Your task to perform on an android device: Search for the new Nintendo switch on Best Buy Image 0: 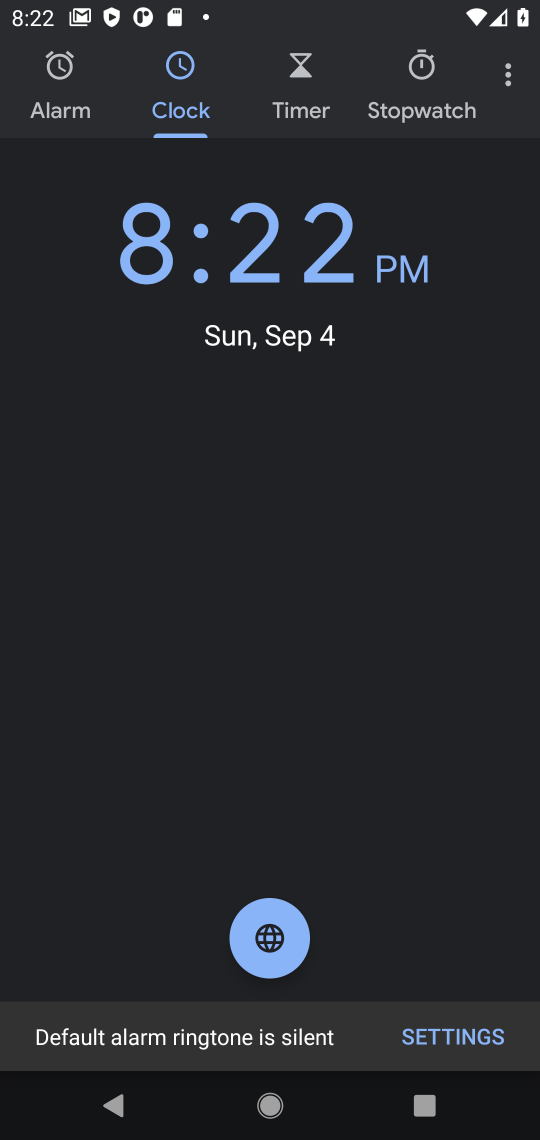
Step 0: press home button
Your task to perform on an android device: Search for the new Nintendo switch on Best Buy Image 1: 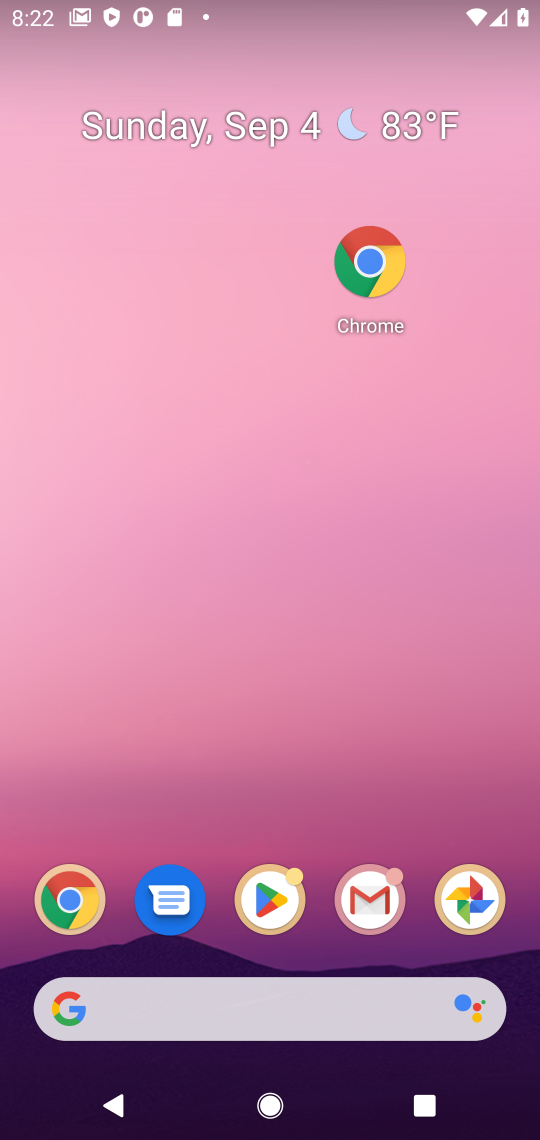
Step 1: drag from (320, 941) to (199, 66)
Your task to perform on an android device: Search for the new Nintendo switch on Best Buy Image 2: 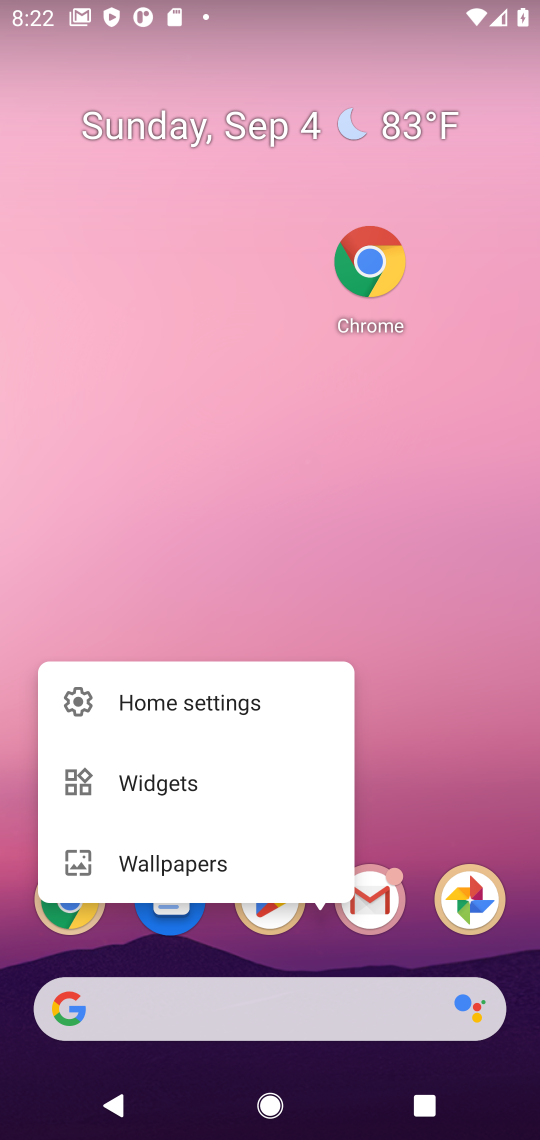
Step 2: click (294, 461)
Your task to perform on an android device: Search for the new Nintendo switch on Best Buy Image 3: 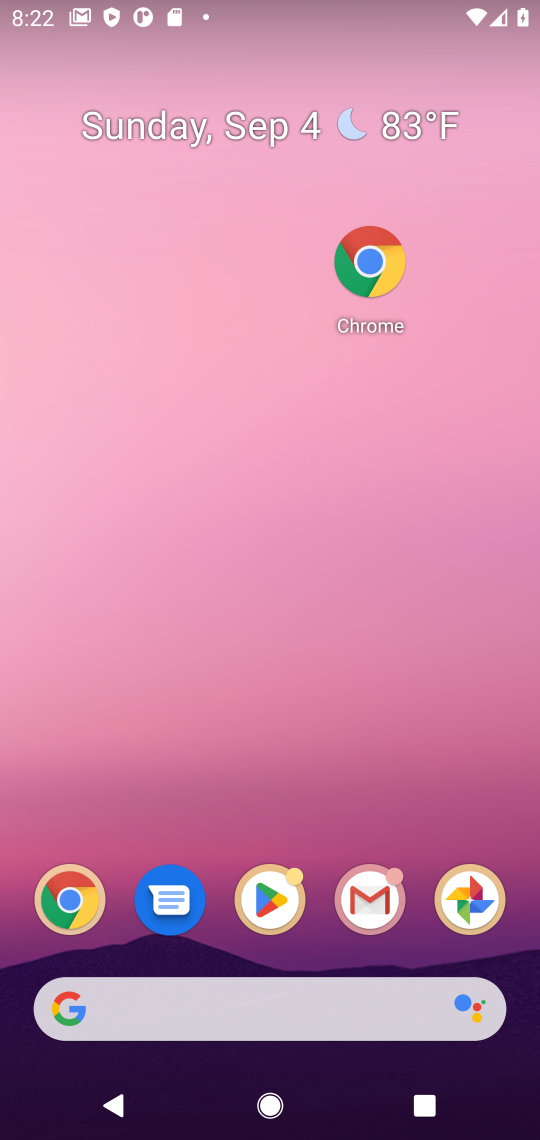
Step 3: drag from (277, 952) to (293, 102)
Your task to perform on an android device: Search for the new Nintendo switch on Best Buy Image 4: 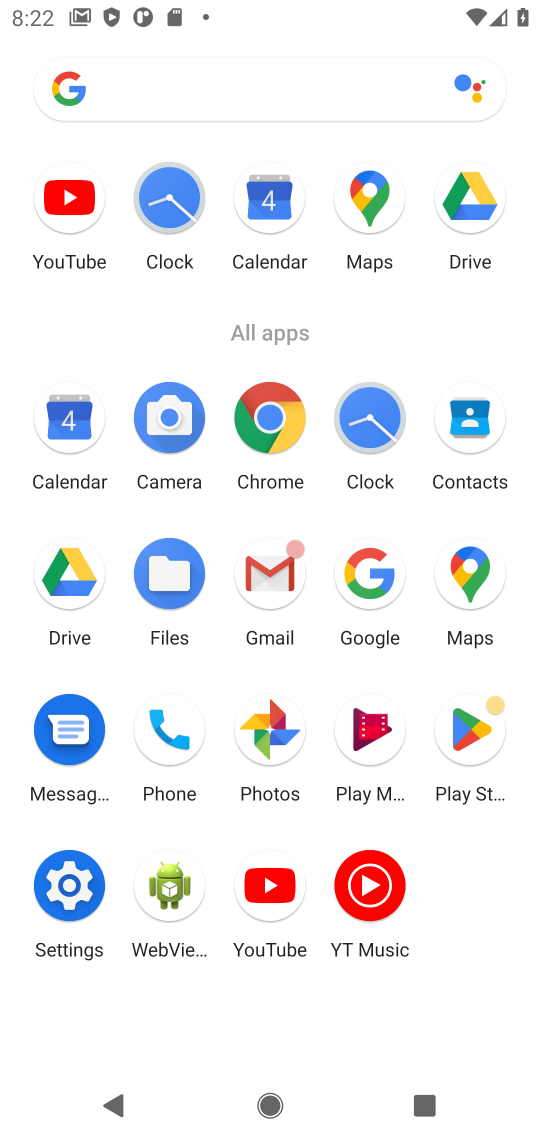
Step 4: click (295, 398)
Your task to perform on an android device: Search for the new Nintendo switch on Best Buy Image 5: 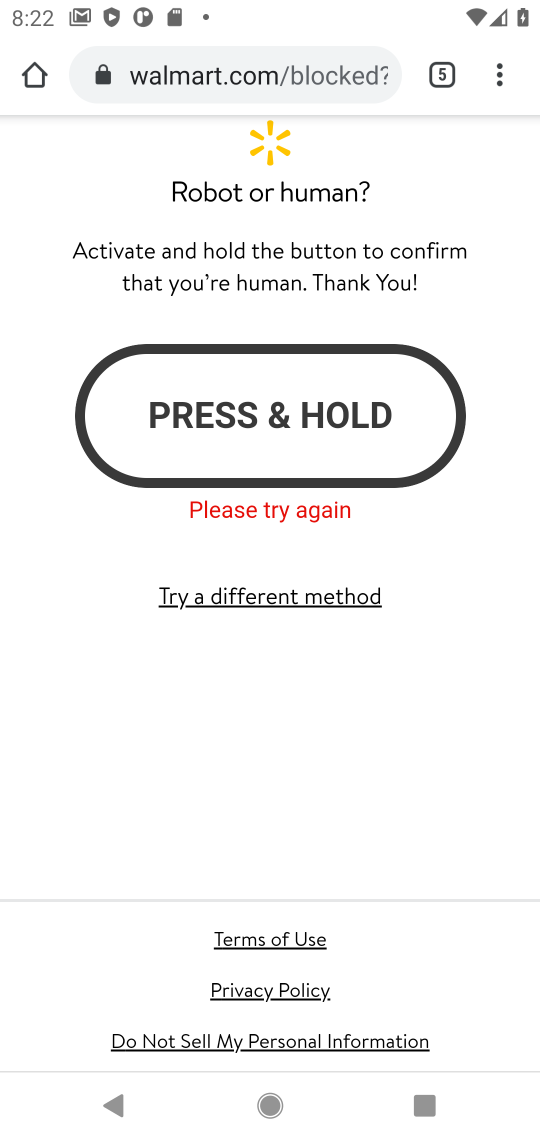
Step 5: click (443, 69)
Your task to perform on an android device: Search for the new Nintendo switch on Best Buy Image 6: 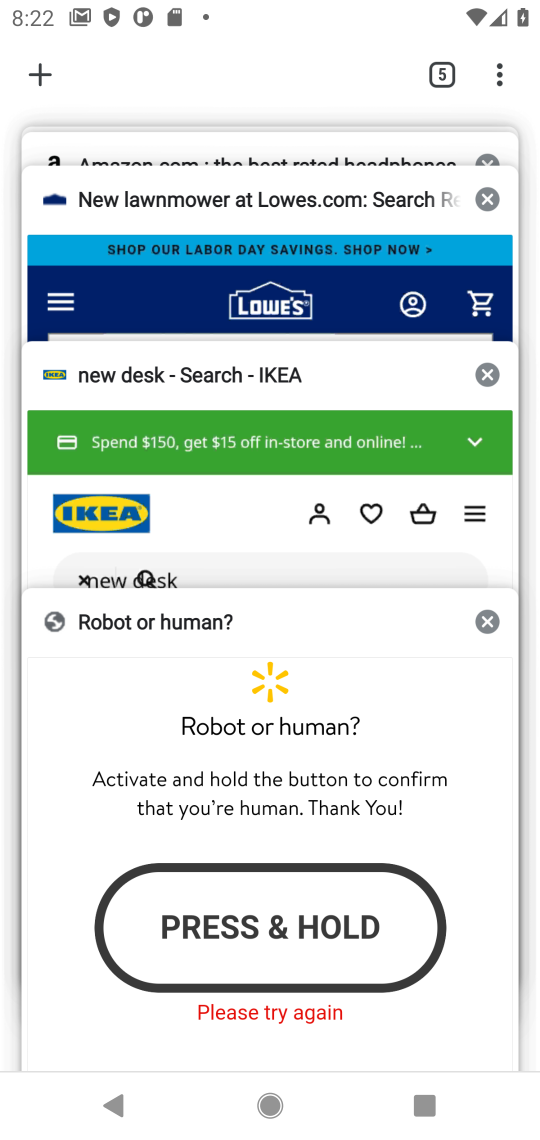
Step 6: click (33, 70)
Your task to perform on an android device: Search for the new Nintendo switch on Best Buy Image 7: 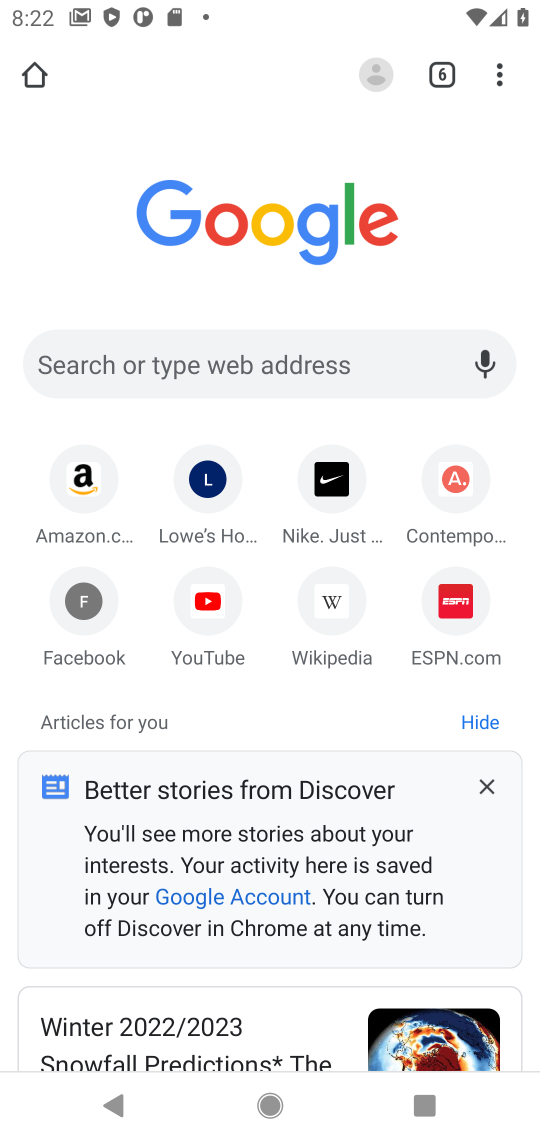
Step 7: click (217, 354)
Your task to perform on an android device: Search for the new Nintendo switch on Best Buy Image 8: 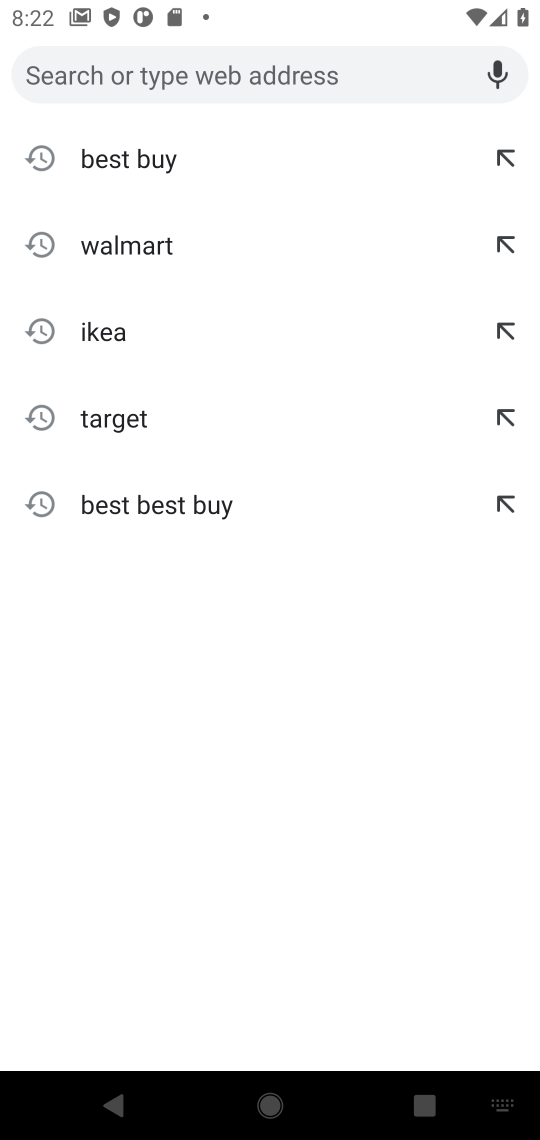
Step 8: click (162, 139)
Your task to perform on an android device: Search for the new Nintendo switch on Best Buy Image 9: 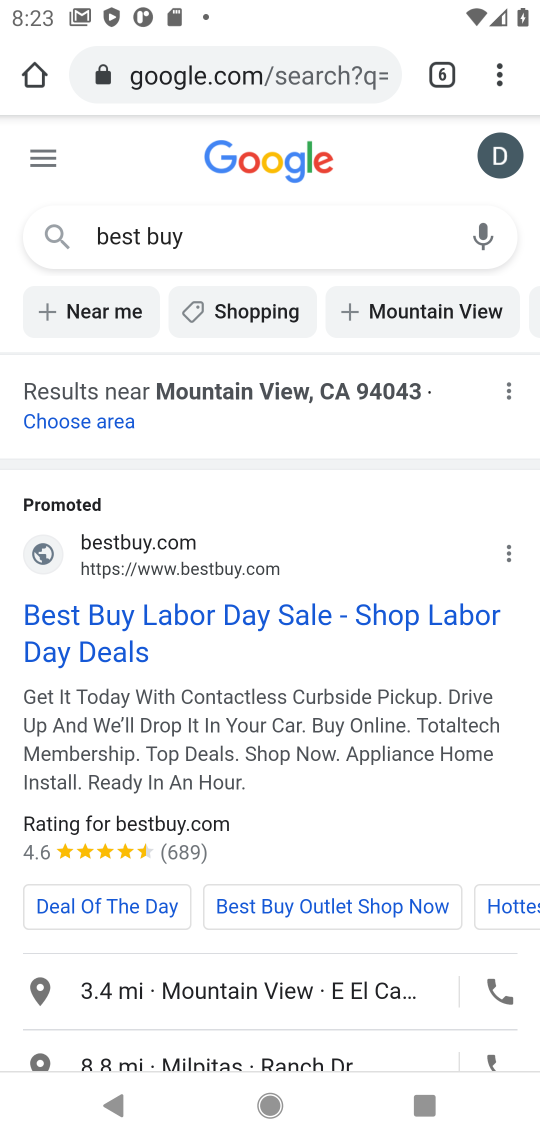
Step 9: click (81, 595)
Your task to perform on an android device: Search for the new Nintendo switch on Best Buy Image 10: 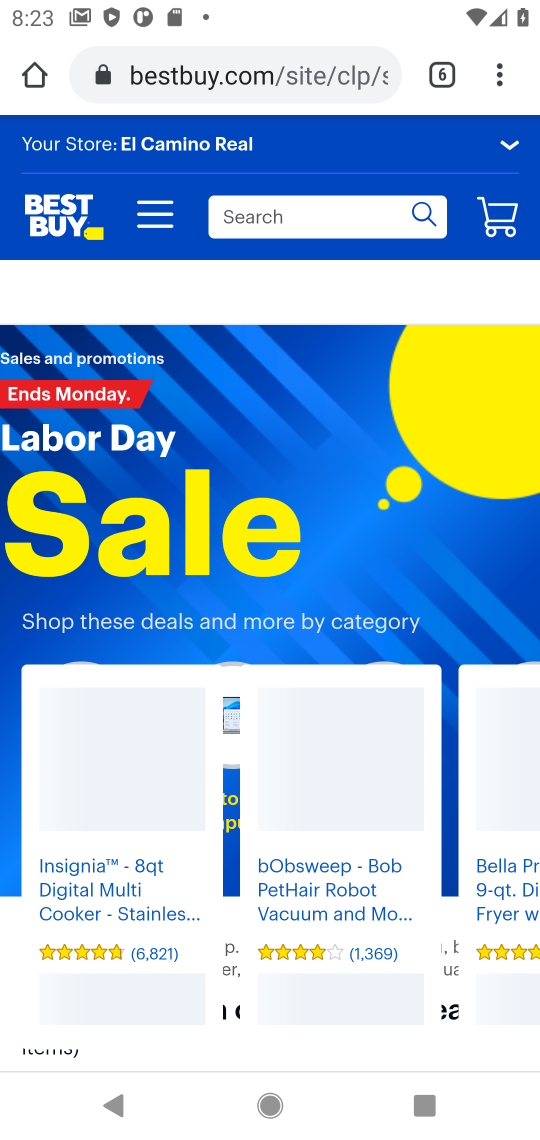
Step 10: click (249, 216)
Your task to perform on an android device: Search for the new Nintendo switch on Best Buy Image 11: 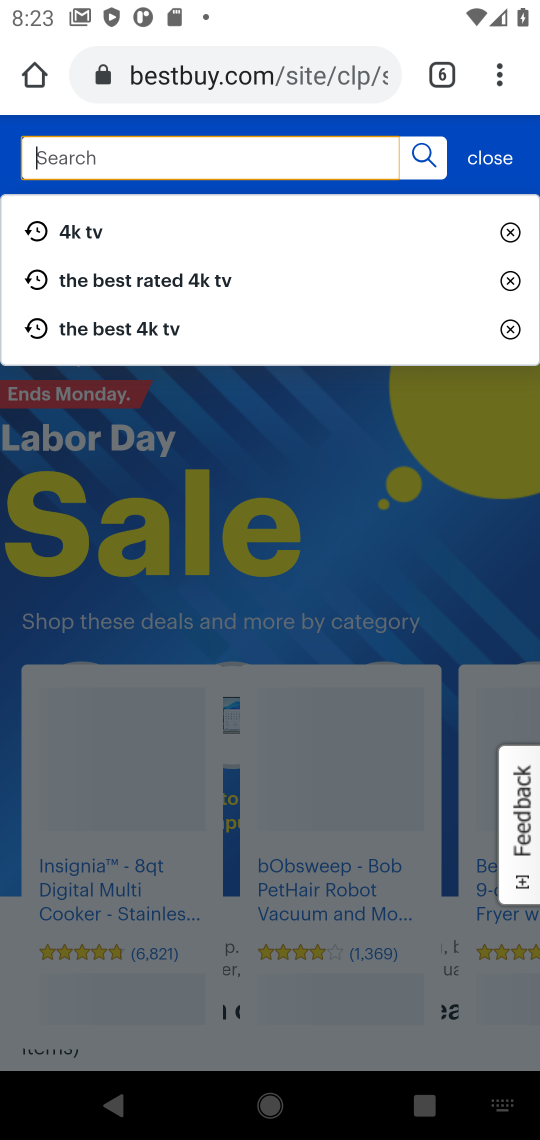
Step 11: type "the new Nintendo switch"
Your task to perform on an android device: Search for the new Nintendo switch on Best Buy Image 12: 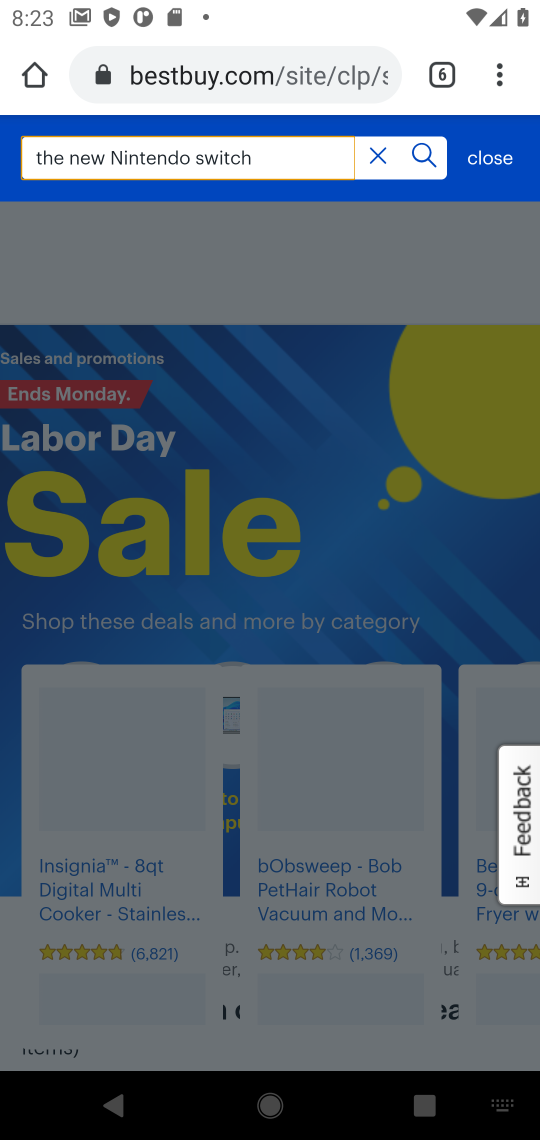
Step 12: click (426, 159)
Your task to perform on an android device: Search for the new Nintendo switch on Best Buy Image 13: 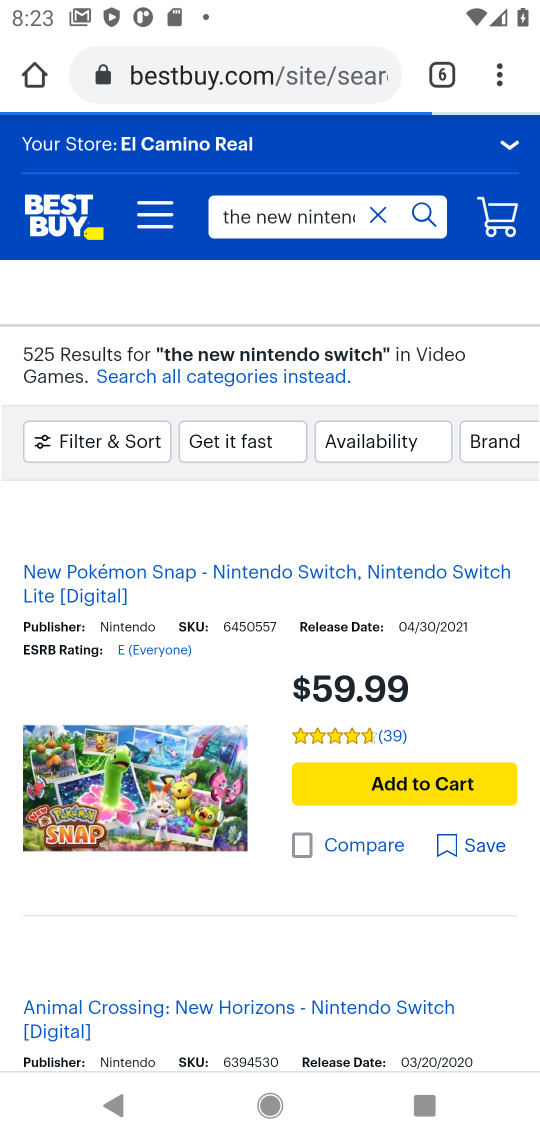
Step 13: task complete